Your task to perform on an android device: turn on airplane mode Image 0: 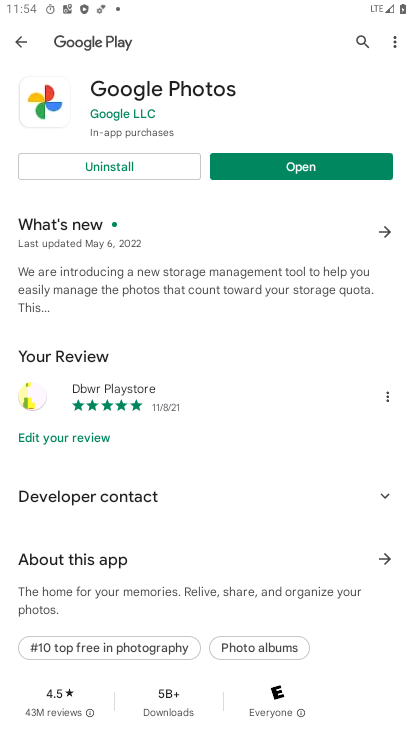
Step 0: press home button
Your task to perform on an android device: turn on airplane mode Image 1: 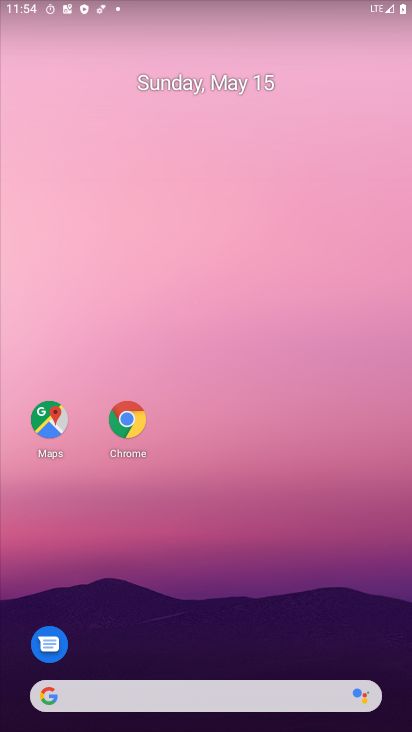
Step 1: drag from (179, 655) to (175, 116)
Your task to perform on an android device: turn on airplane mode Image 2: 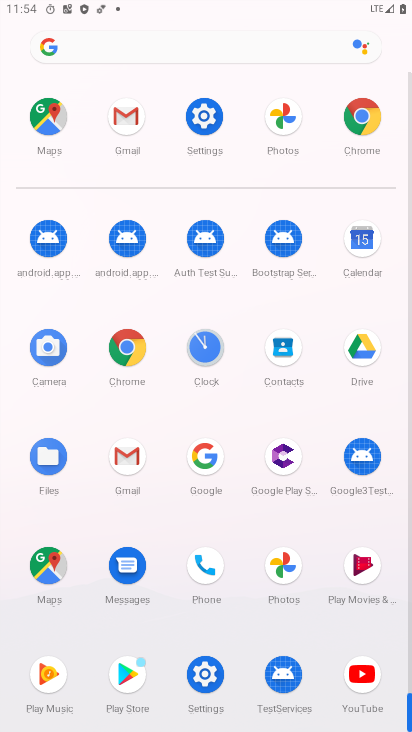
Step 2: click (200, 117)
Your task to perform on an android device: turn on airplane mode Image 3: 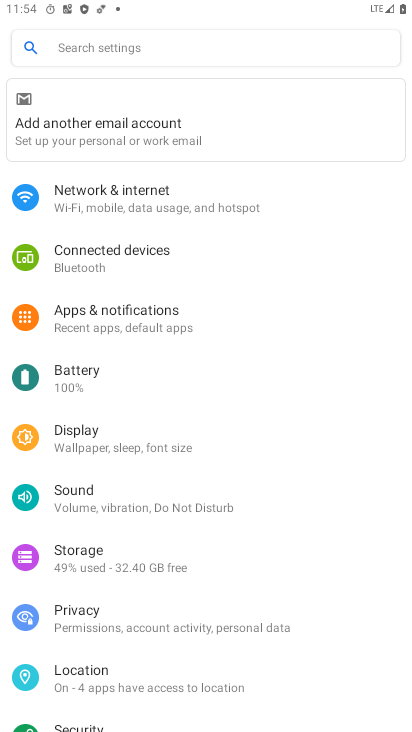
Step 3: click (185, 190)
Your task to perform on an android device: turn on airplane mode Image 4: 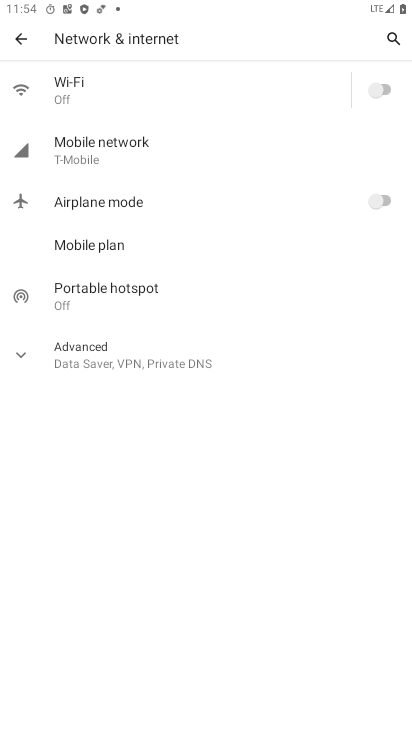
Step 4: click (170, 204)
Your task to perform on an android device: turn on airplane mode Image 5: 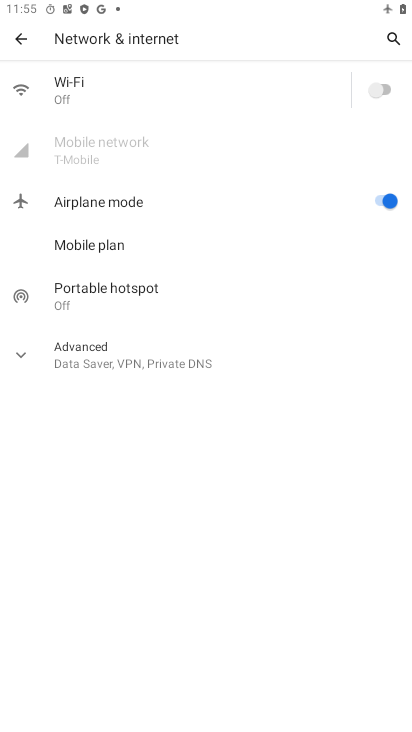
Step 5: task complete